Your task to perform on an android device: Show me recent news Image 0: 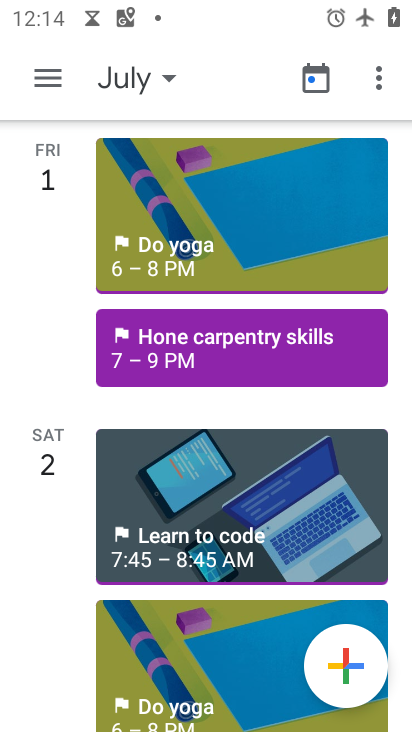
Step 0: press home button
Your task to perform on an android device: Show me recent news Image 1: 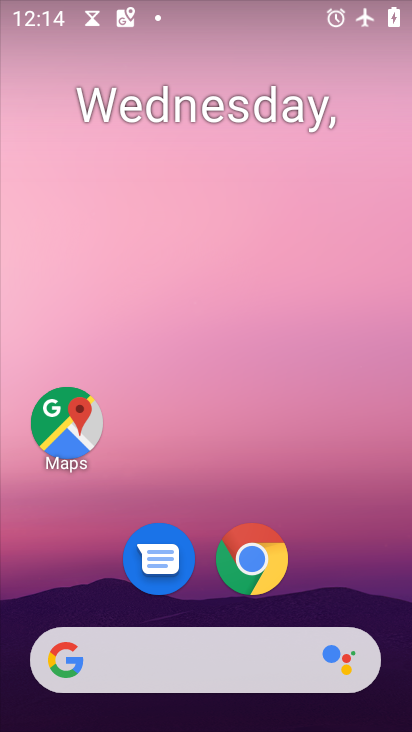
Step 1: click (242, 553)
Your task to perform on an android device: Show me recent news Image 2: 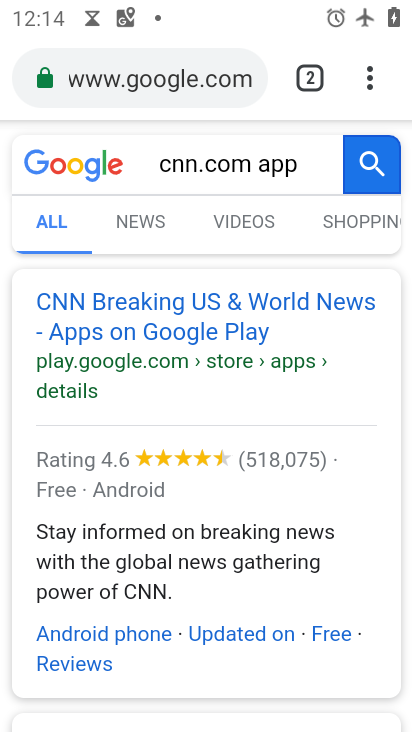
Step 2: drag from (376, 85) to (81, 158)
Your task to perform on an android device: Show me recent news Image 3: 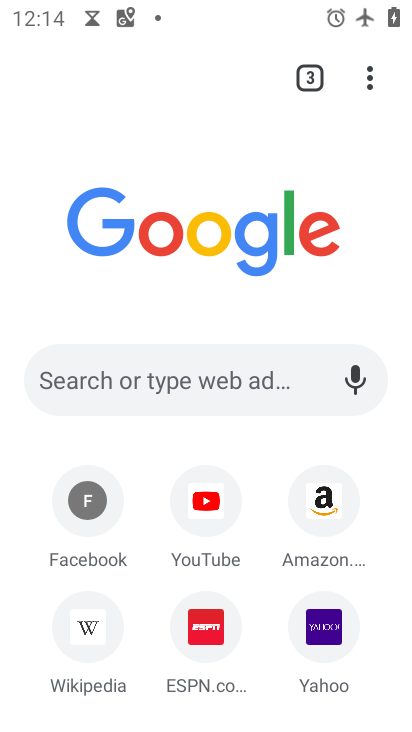
Step 3: drag from (383, 597) to (382, 117)
Your task to perform on an android device: Show me recent news Image 4: 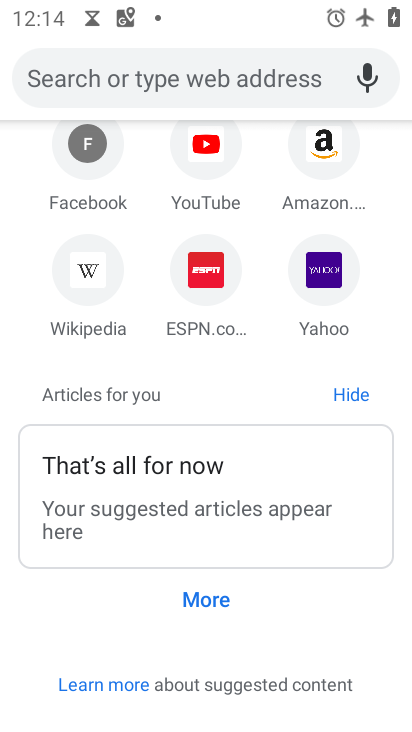
Step 4: click (204, 592)
Your task to perform on an android device: Show me recent news Image 5: 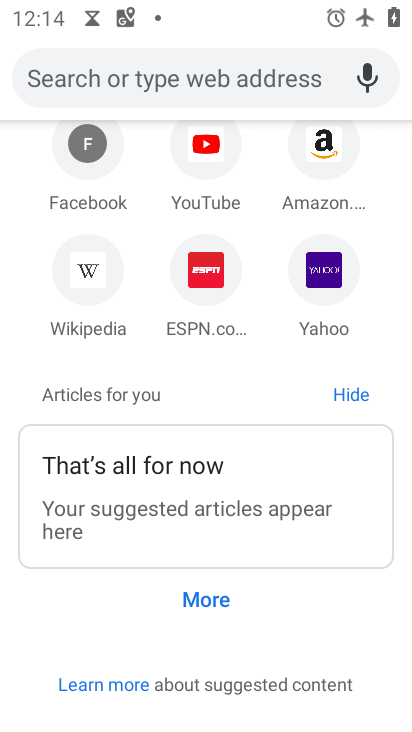
Step 5: click (201, 595)
Your task to perform on an android device: Show me recent news Image 6: 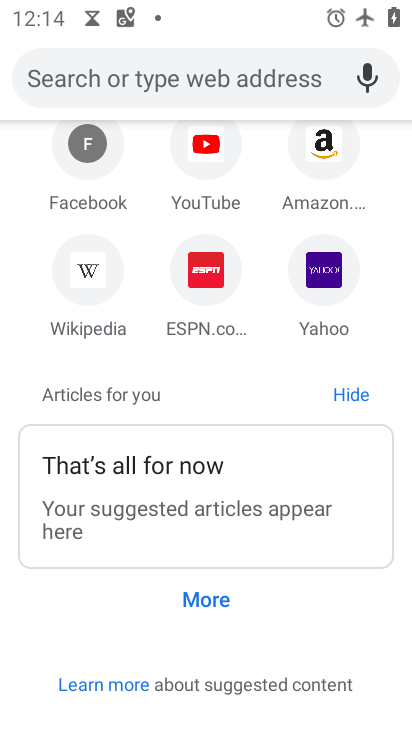
Step 6: click (200, 596)
Your task to perform on an android device: Show me recent news Image 7: 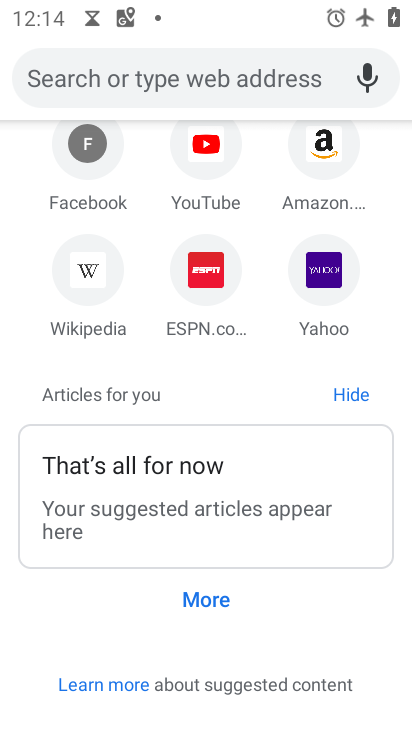
Step 7: click (208, 607)
Your task to perform on an android device: Show me recent news Image 8: 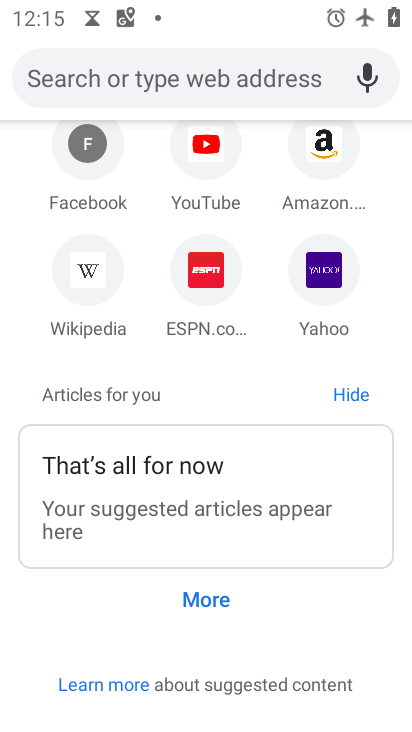
Step 8: click (217, 594)
Your task to perform on an android device: Show me recent news Image 9: 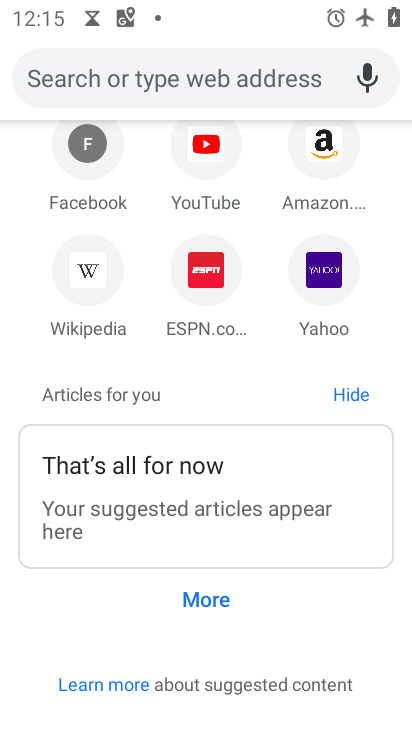
Step 9: click (216, 600)
Your task to perform on an android device: Show me recent news Image 10: 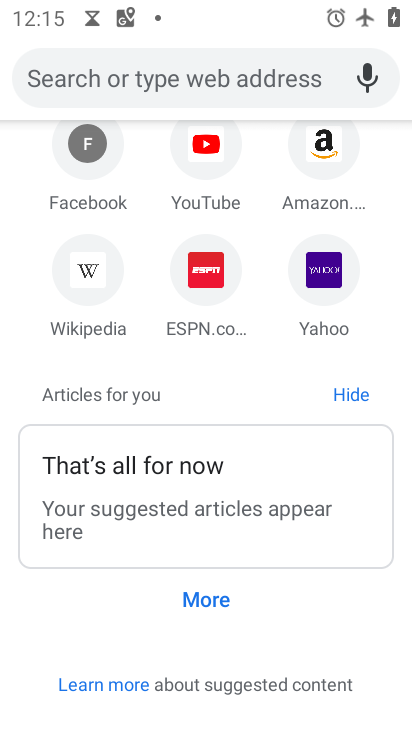
Step 10: task complete